Your task to perform on an android device: delete browsing data in the chrome app Image 0: 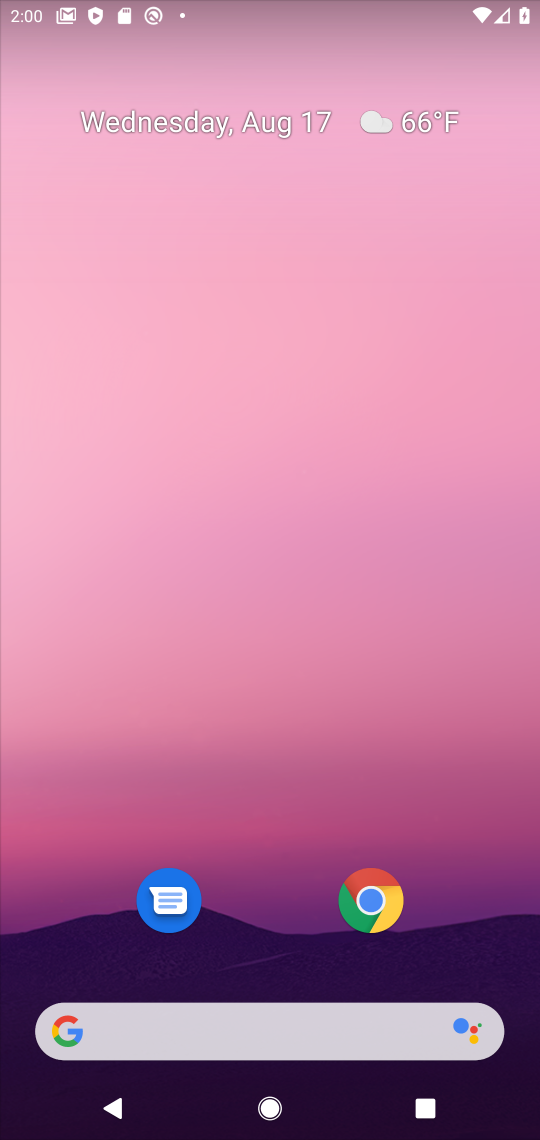
Step 0: click (355, 905)
Your task to perform on an android device: delete browsing data in the chrome app Image 1: 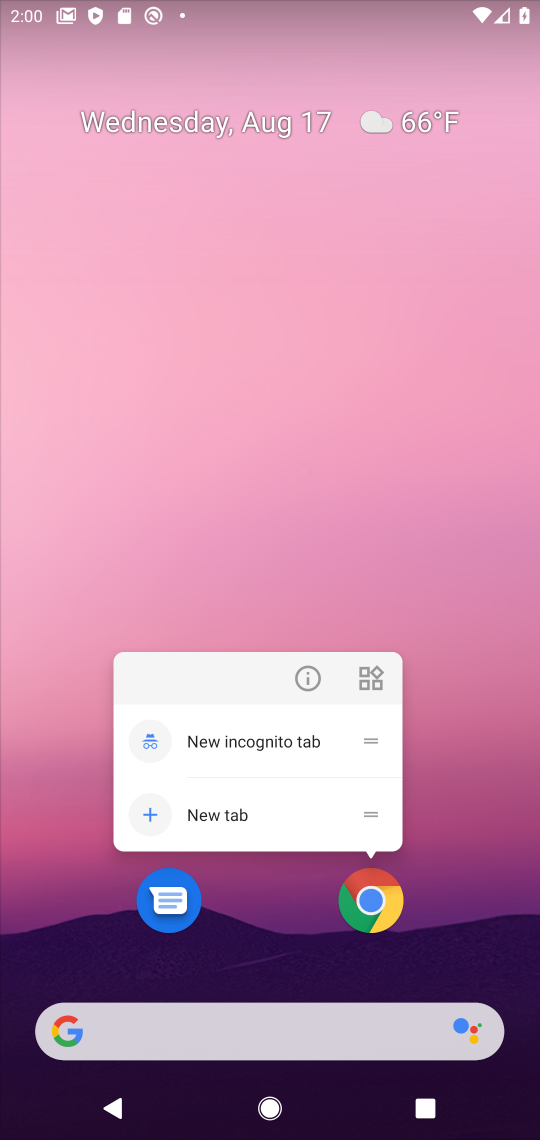
Step 1: click (367, 908)
Your task to perform on an android device: delete browsing data in the chrome app Image 2: 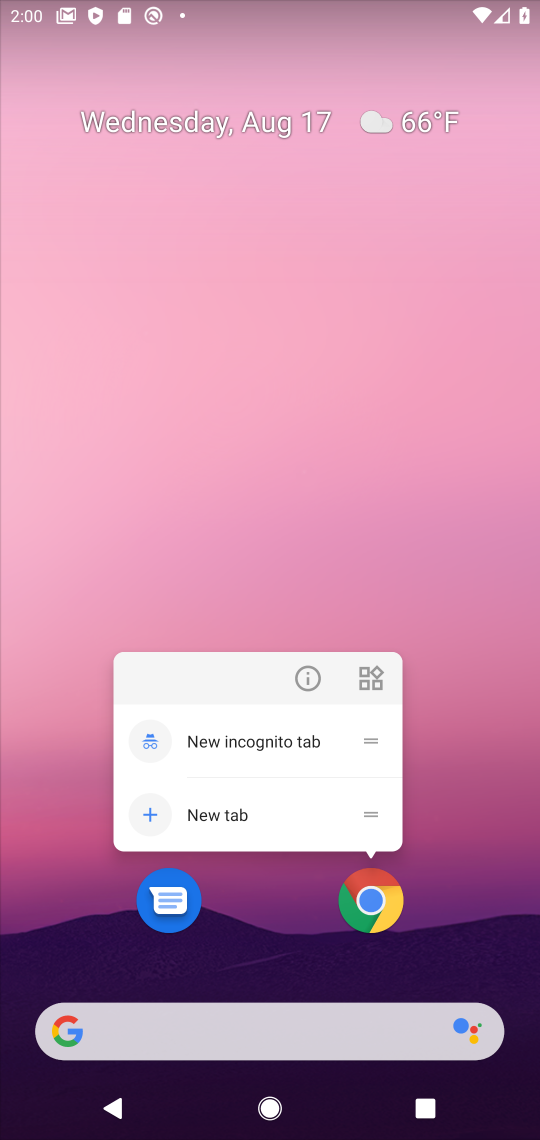
Step 2: click (367, 907)
Your task to perform on an android device: delete browsing data in the chrome app Image 3: 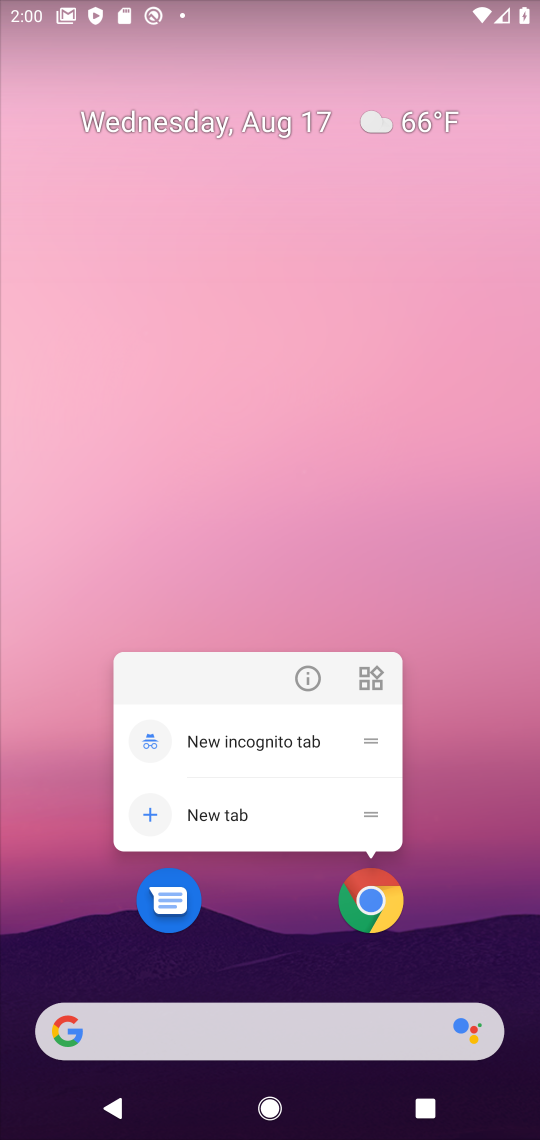
Step 3: click (371, 902)
Your task to perform on an android device: delete browsing data in the chrome app Image 4: 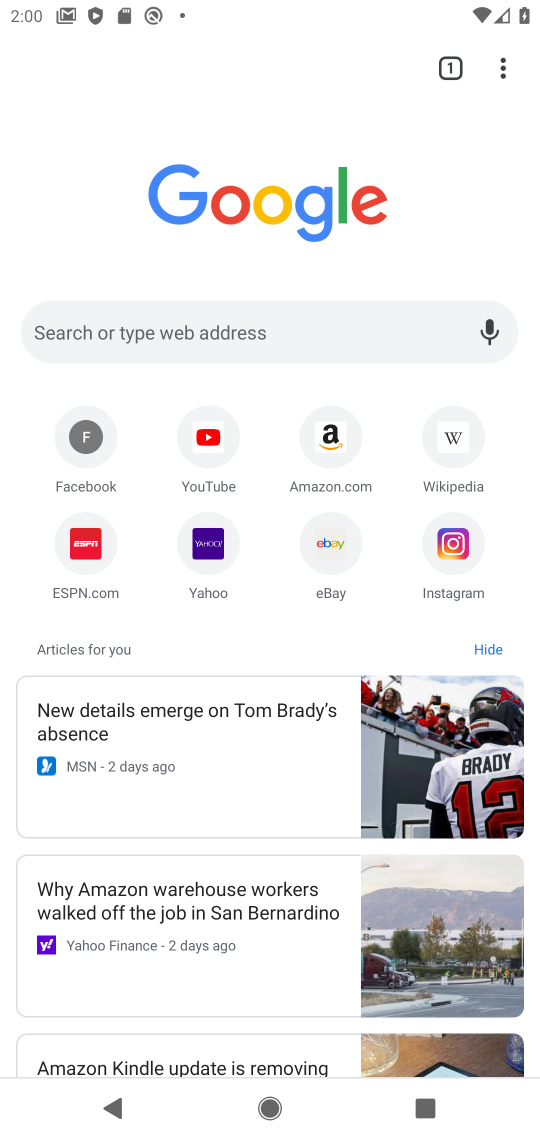
Step 4: drag from (505, 75) to (306, 643)
Your task to perform on an android device: delete browsing data in the chrome app Image 5: 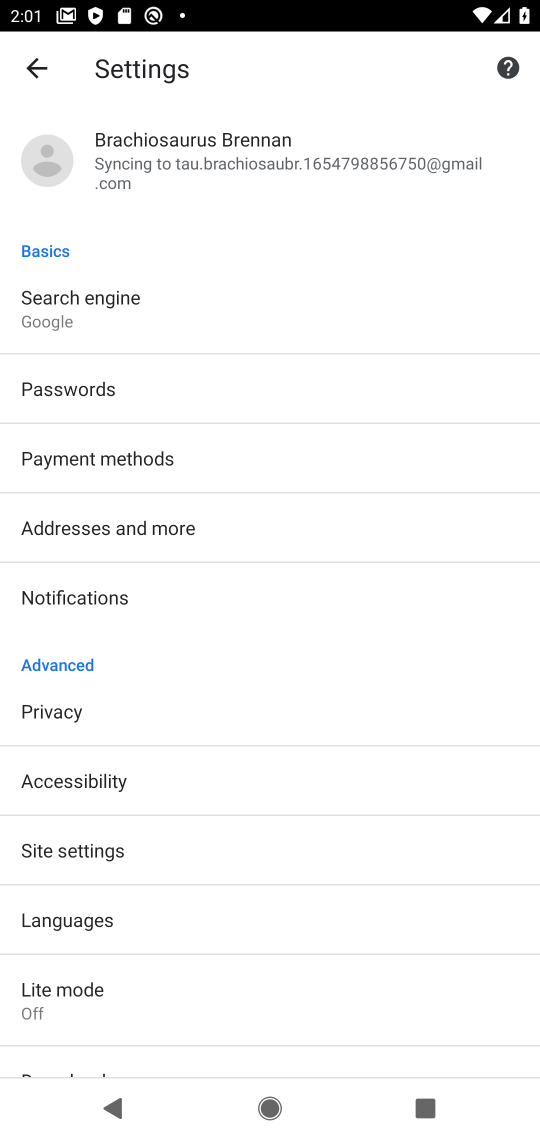
Step 5: drag from (237, 928) to (325, 572)
Your task to perform on an android device: delete browsing data in the chrome app Image 6: 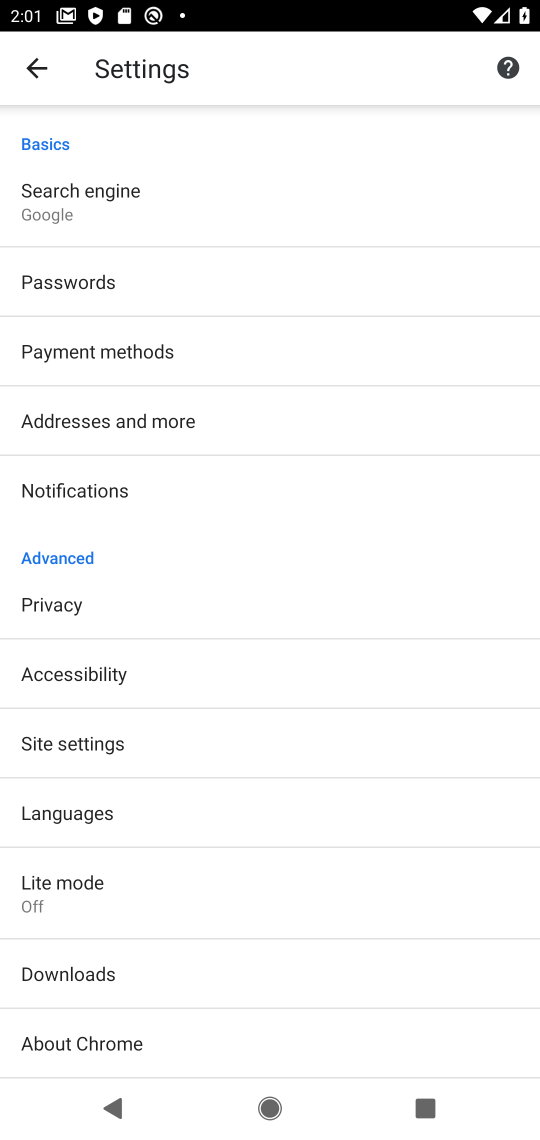
Step 6: drag from (307, 405) to (338, 818)
Your task to perform on an android device: delete browsing data in the chrome app Image 7: 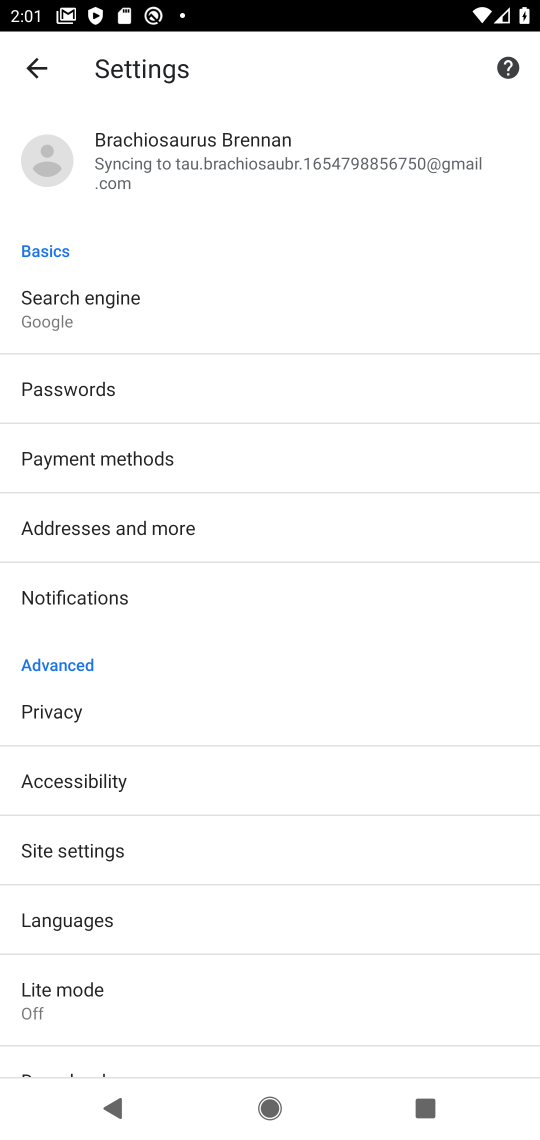
Step 7: click (66, 700)
Your task to perform on an android device: delete browsing data in the chrome app Image 8: 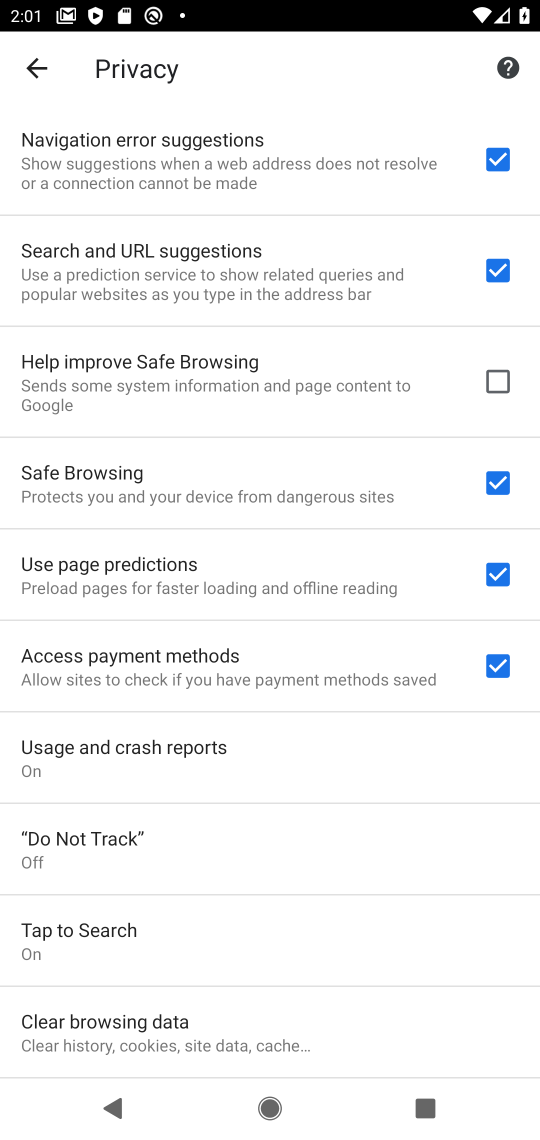
Step 8: drag from (374, 982) to (445, 224)
Your task to perform on an android device: delete browsing data in the chrome app Image 9: 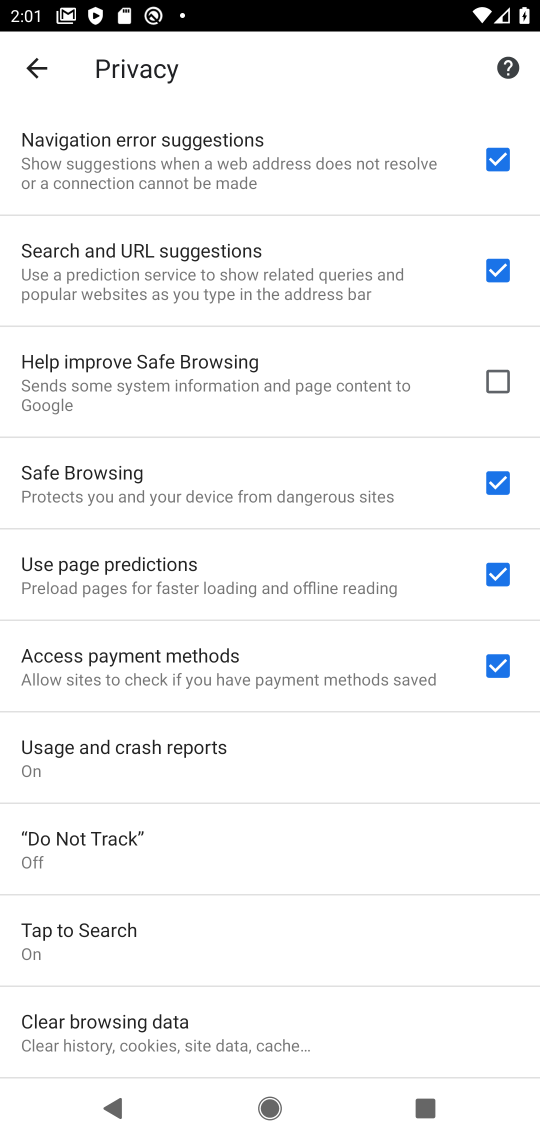
Step 9: click (372, 1040)
Your task to perform on an android device: delete browsing data in the chrome app Image 10: 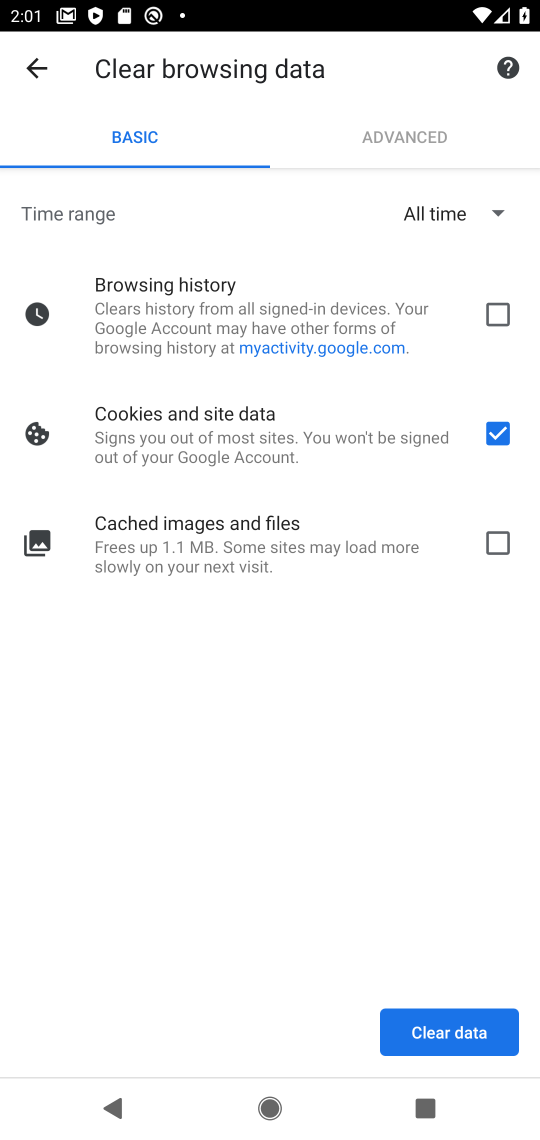
Step 10: click (493, 313)
Your task to perform on an android device: delete browsing data in the chrome app Image 11: 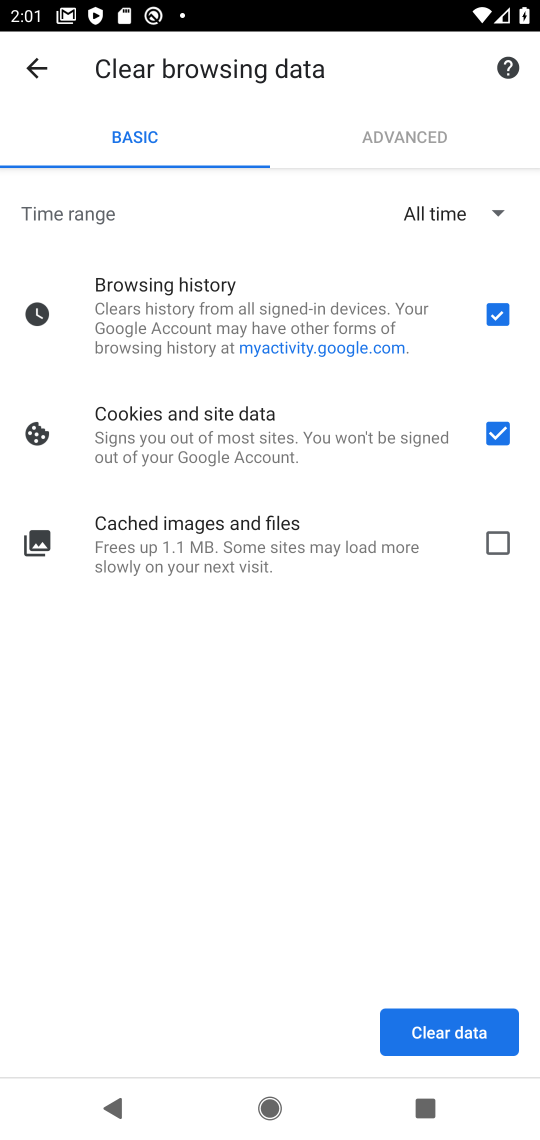
Step 11: click (497, 550)
Your task to perform on an android device: delete browsing data in the chrome app Image 12: 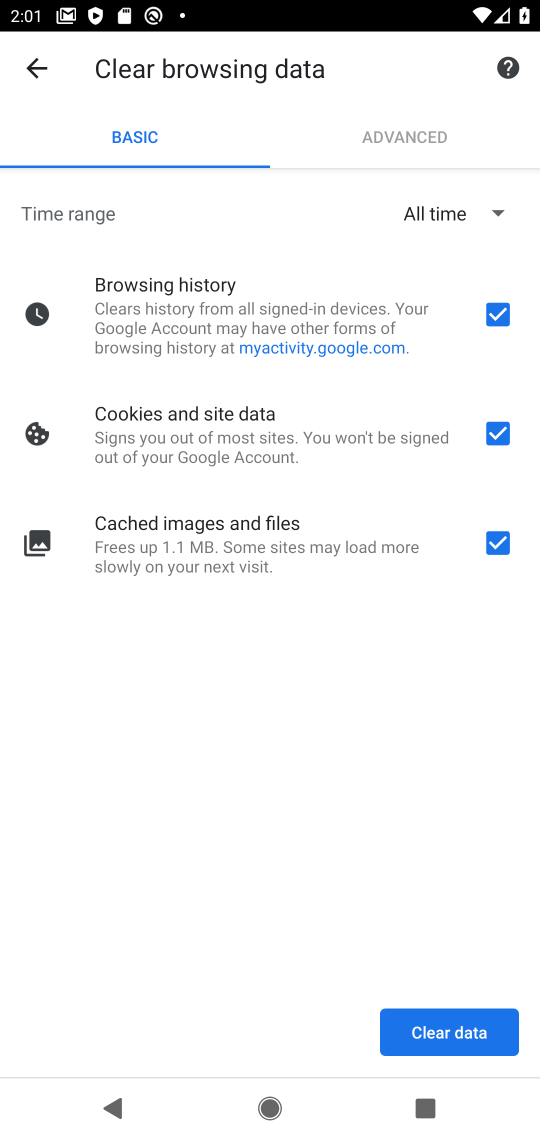
Step 12: click (465, 1046)
Your task to perform on an android device: delete browsing data in the chrome app Image 13: 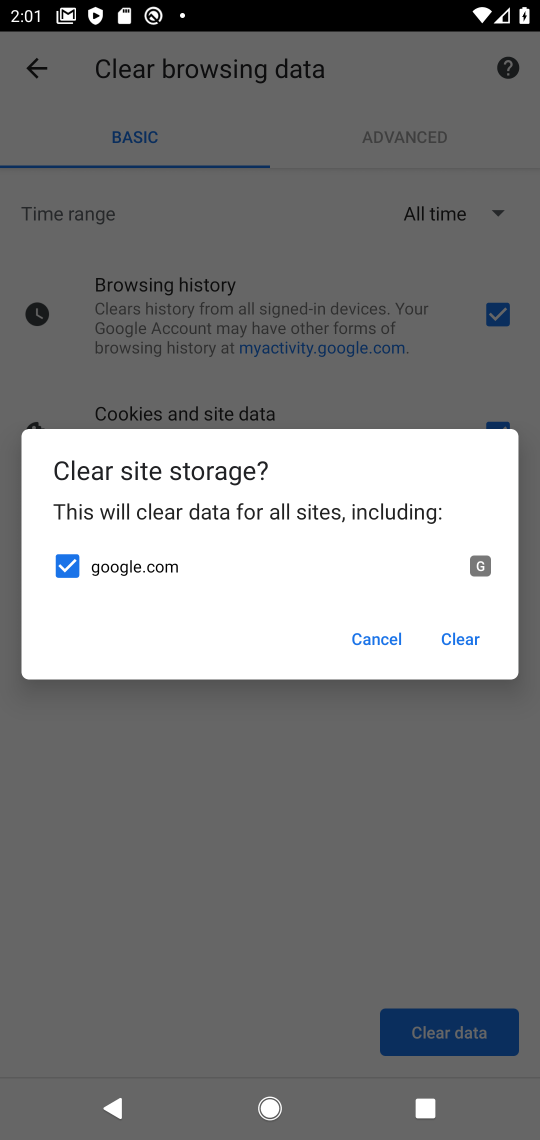
Step 13: click (464, 636)
Your task to perform on an android device: delete browsing data in the chrome app Image 14: 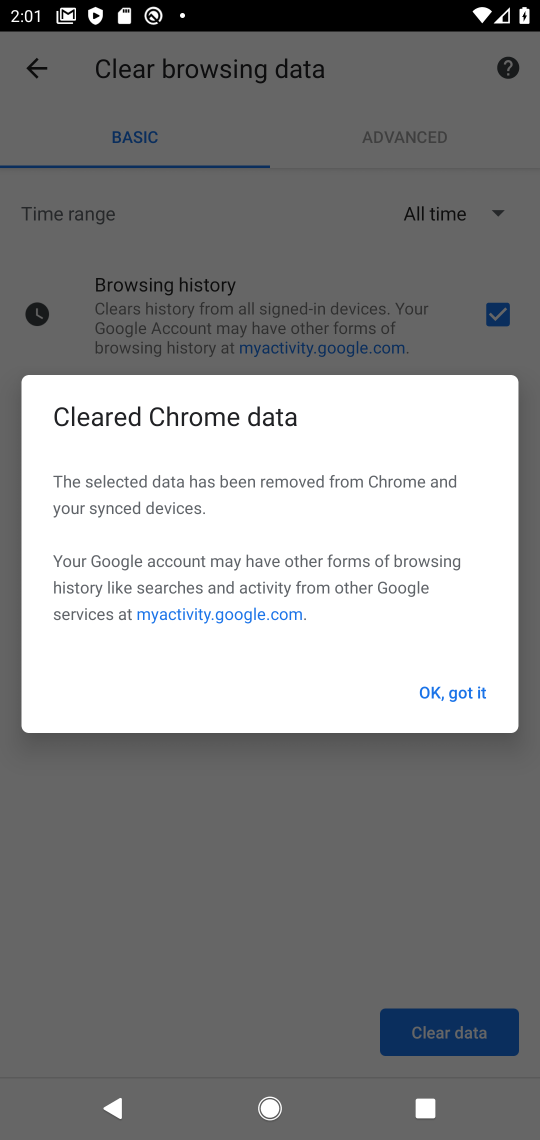
Step 14: click (470, 696)
Your task to perform on an android device: delete browsing data in the chrome app Image 15: 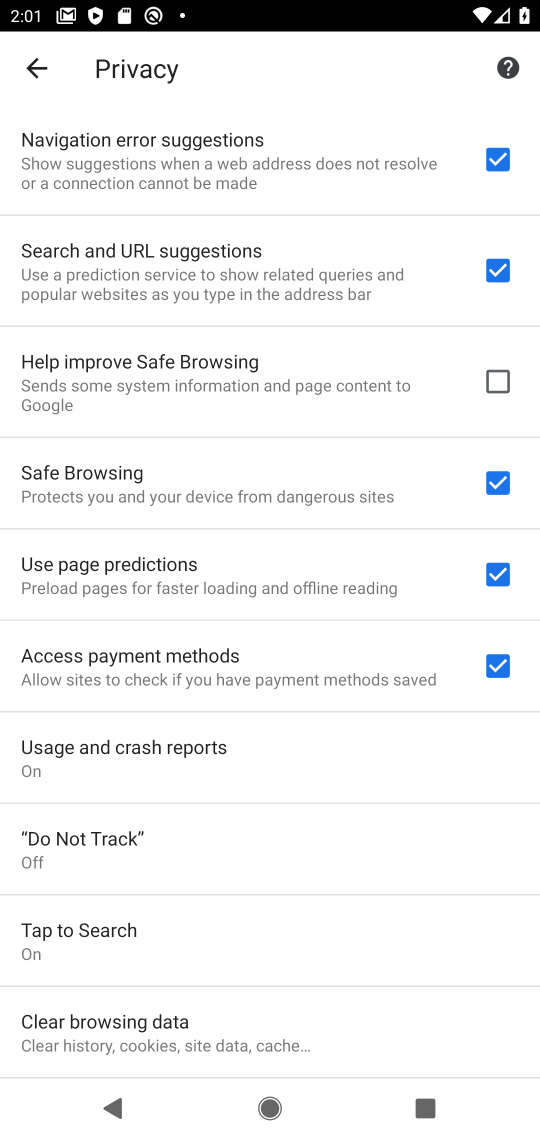
Step 15: task complete